Your task to perform on an android device: install app "Facebook" Image 0: 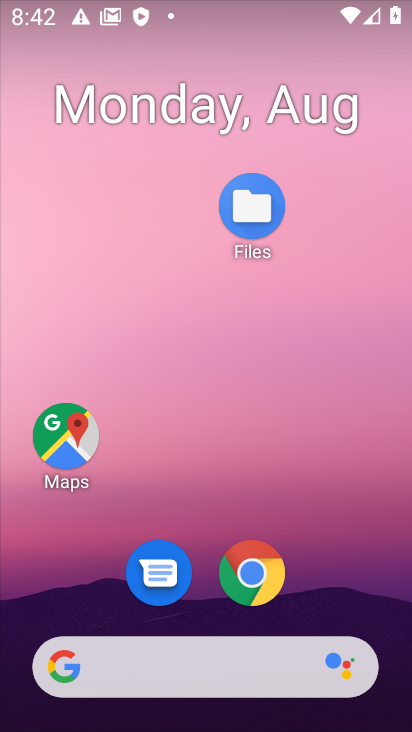
Step 0: drag from (263, 650) to (234, 29)
Your task to perform on an android device: install app "Facebook" Image 1: 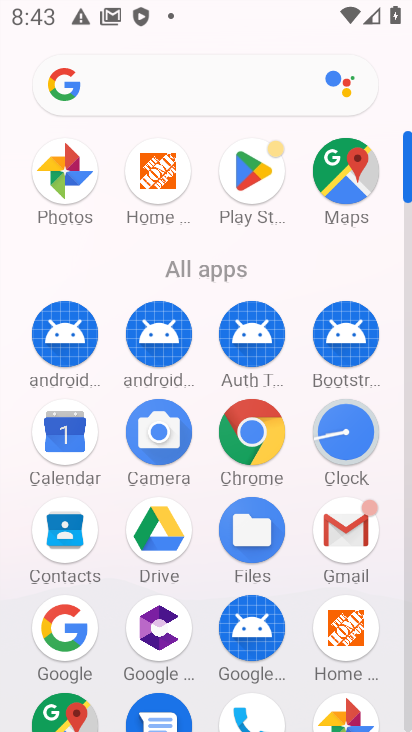
Step 1: click (237, 174)
Your task to perform on an android device: install app "Facebook" Image 2: 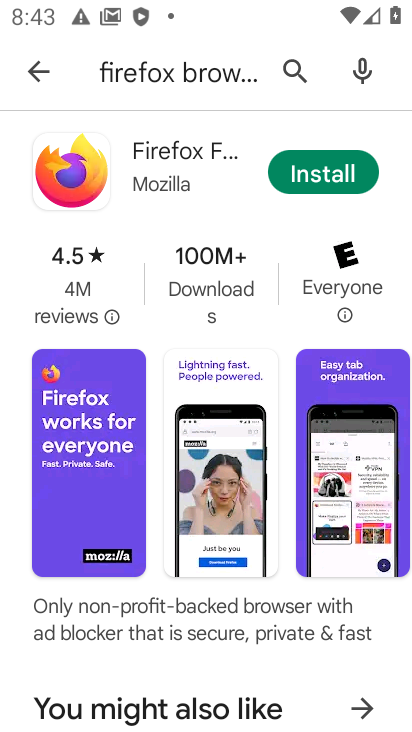
Step 2: click (295, 68)
Your task to perform on an android device: install app "Facebook" Image 3: 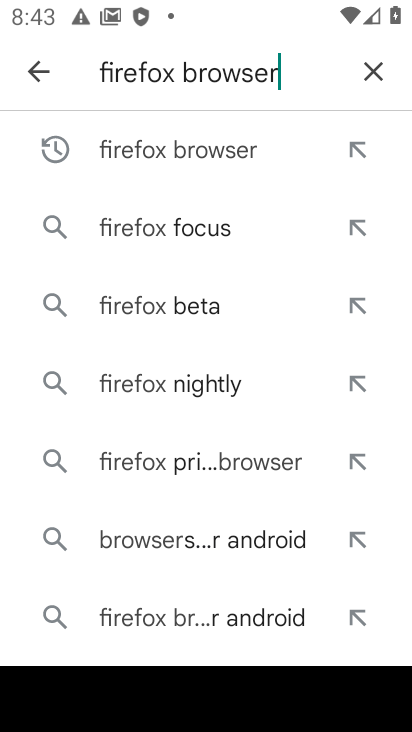
Step 3: click (381, 68)
Your task to perform on an android device: install app "Facebook" Image 4: 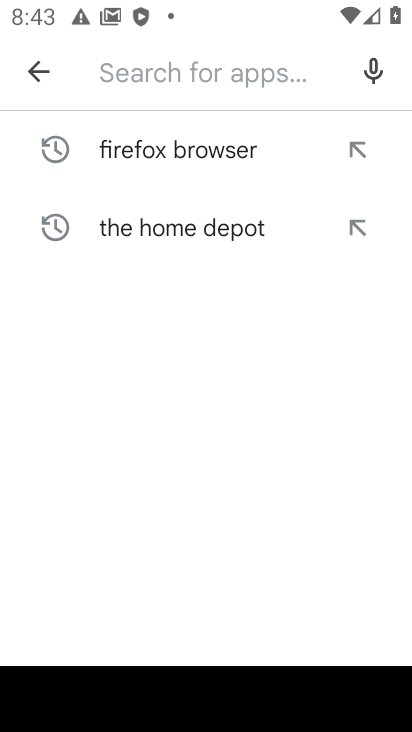
Step 4: type "facebook"
Your task to perform on an android device: install app "Facebook" Image 5: 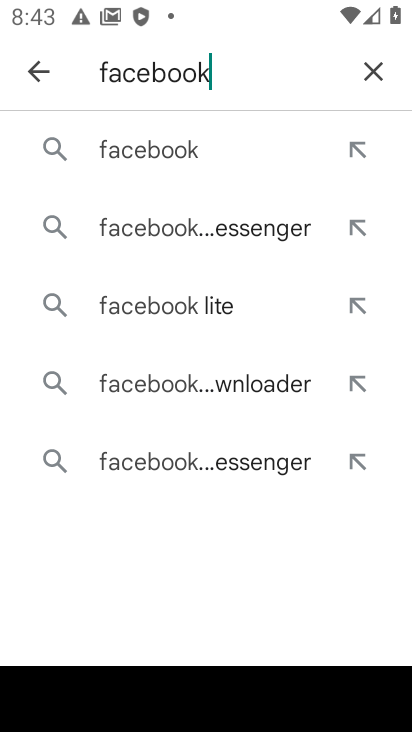
Step 5: click (203, 153)
Your task to perform on an android device: install app "Facebook" Image 6: 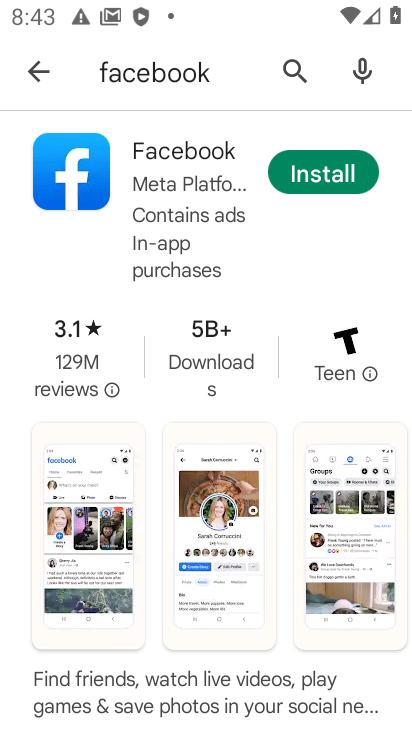
Step 6: click (349, 181)
Your task to perform on an android device: install app "Facebook" Image 7: 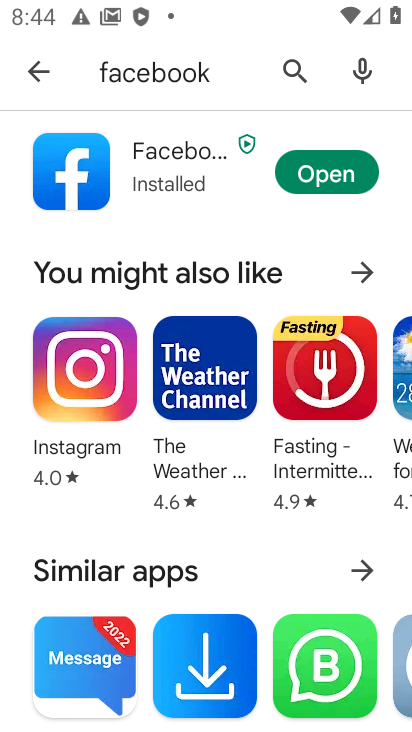
Step 7: task complete